Your task to perform on an android device: toggle sleep mode Image 0: 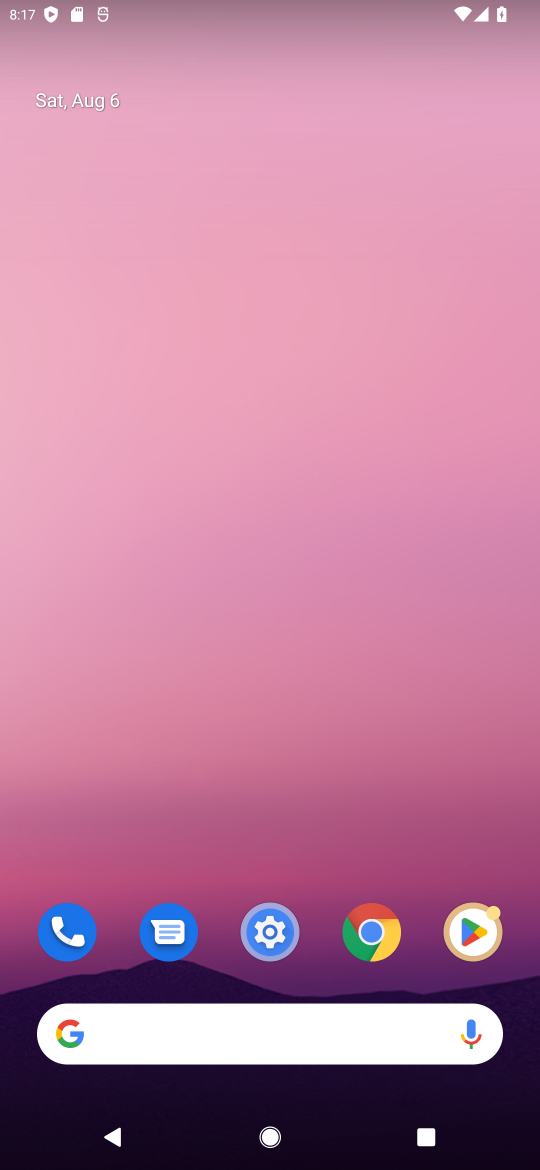
Step 0: drag from (281, 1054) to (138, 258)
Your task to perform on an android device: toggle sleep mode Image 1: 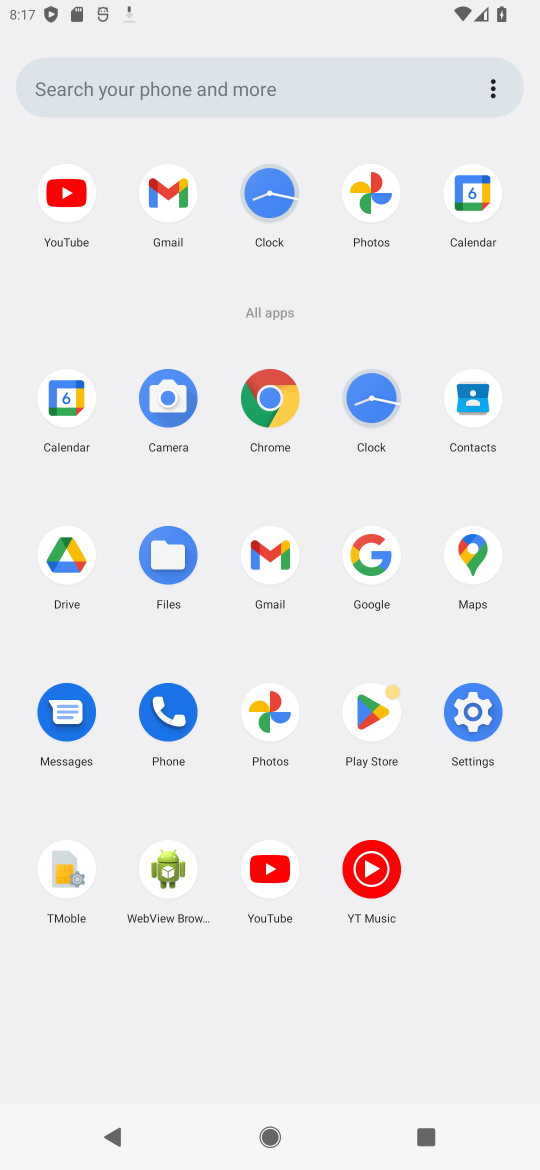
Step 1: click (468, 712)
Your task to perform on an android device: toggle sleep mode Image 2: 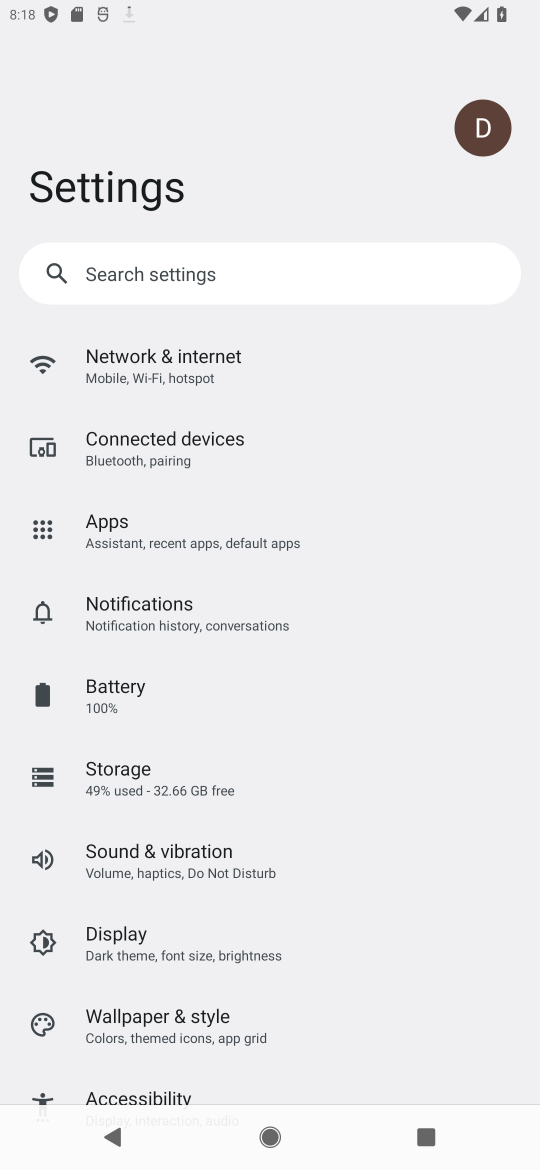
Step 2: click (248, 262)
Your task to perform on an android device: toggle sleep mode Image 3: 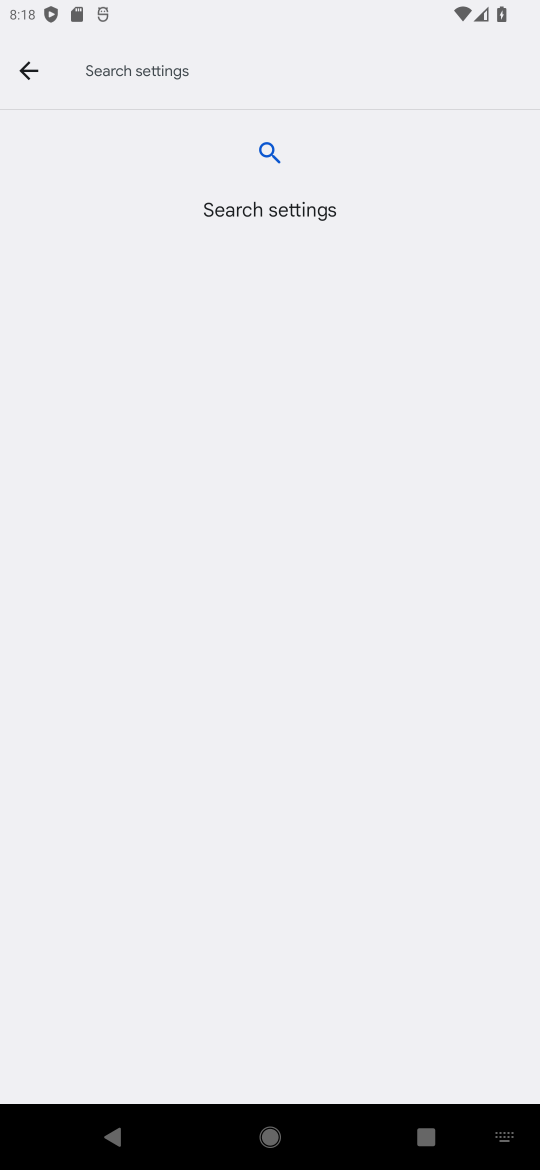
Step 3: type "sleep"
Your task to perform on an android device: toggle sleep mode Image 4: 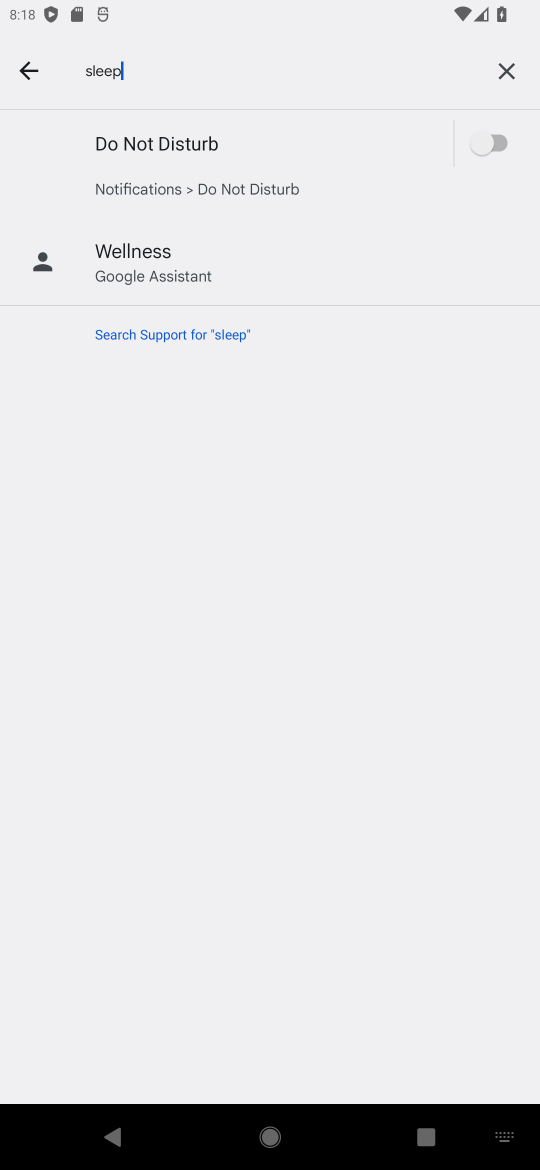
Step 4: click (186, 274)
Your task to perform on an android device: toggle sleep mode Image 5: 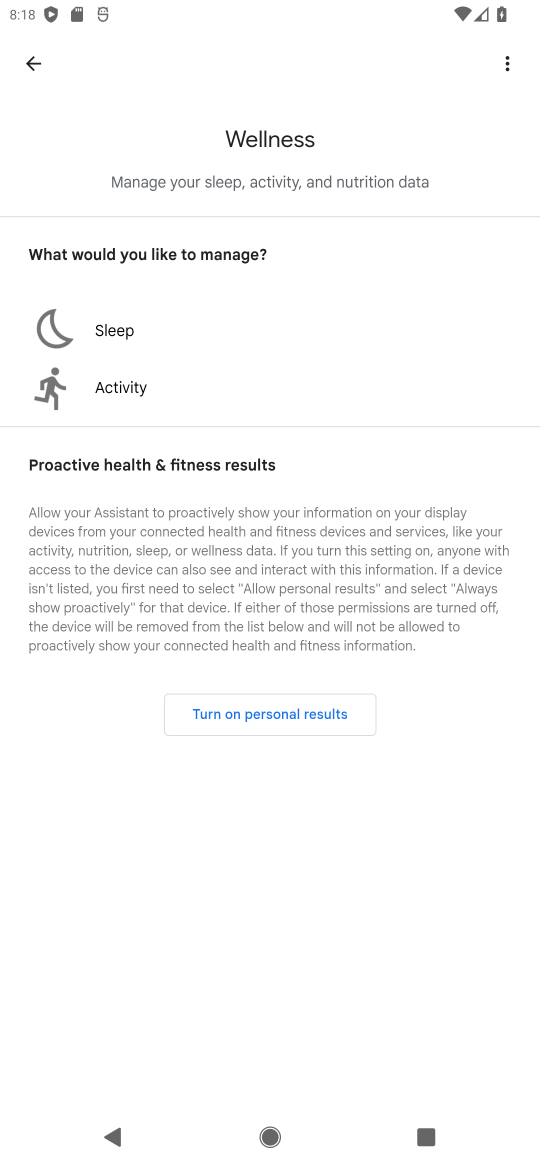
Step 5: click (125, 333)
Your task to perform on an android device: toggle sleep mode Image 6: 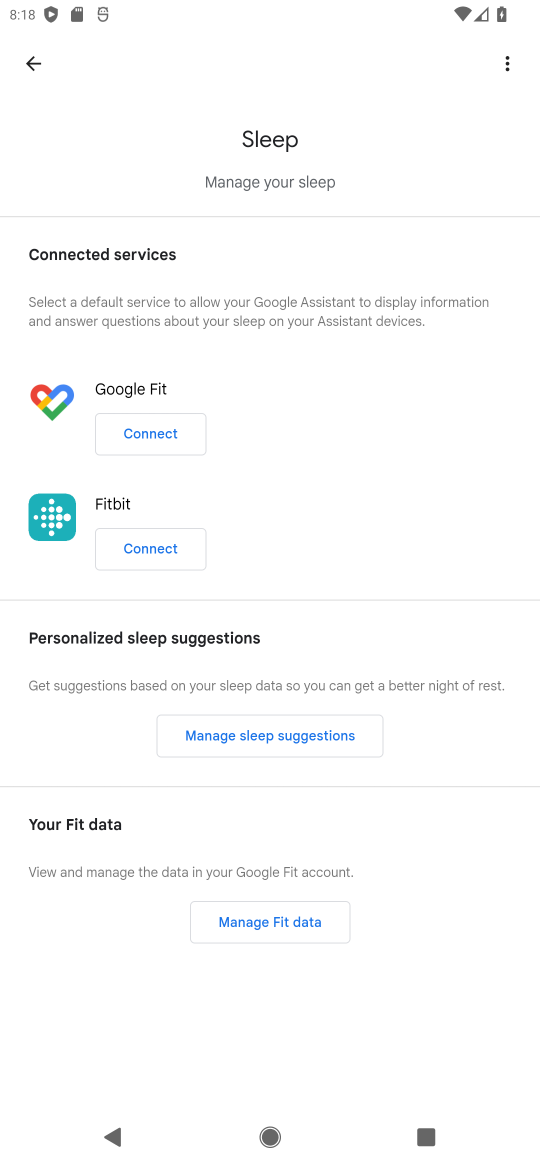
Step 6: task complete